Your task to perform on an android device: Search for Mexican restaurants on Maps Image 0: 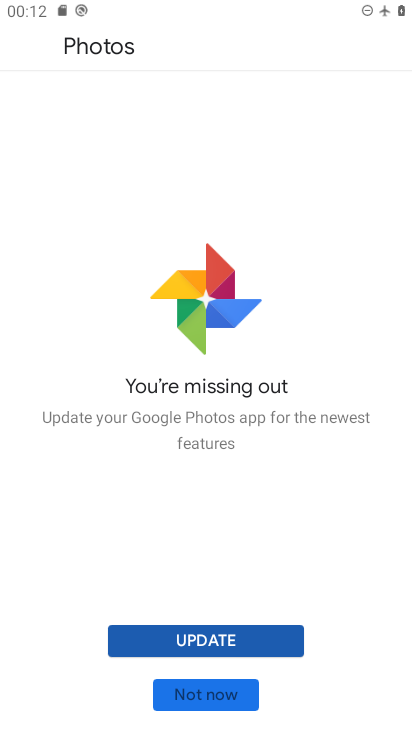
Step 0: press home button
Your task to perform on an android device: Search for Mexican restaurants on Maps Image 1: 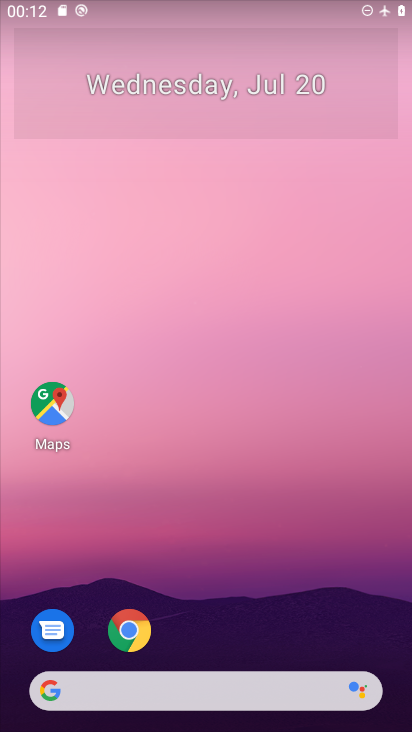
Step 1: click (70, 412)
Your task to perform on an android device: Search for Mexican restaurants on Maps Image 2: 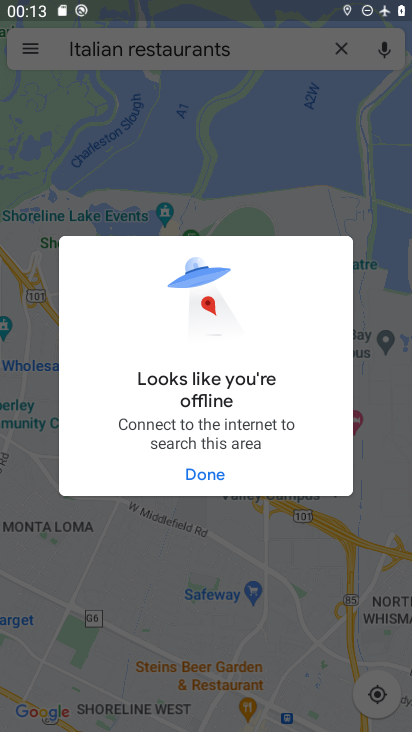
Step 2: task complete